Your task to perform on an android device: open app "Pandora - Music & Podcasts" (install if not already installed) Image 0: 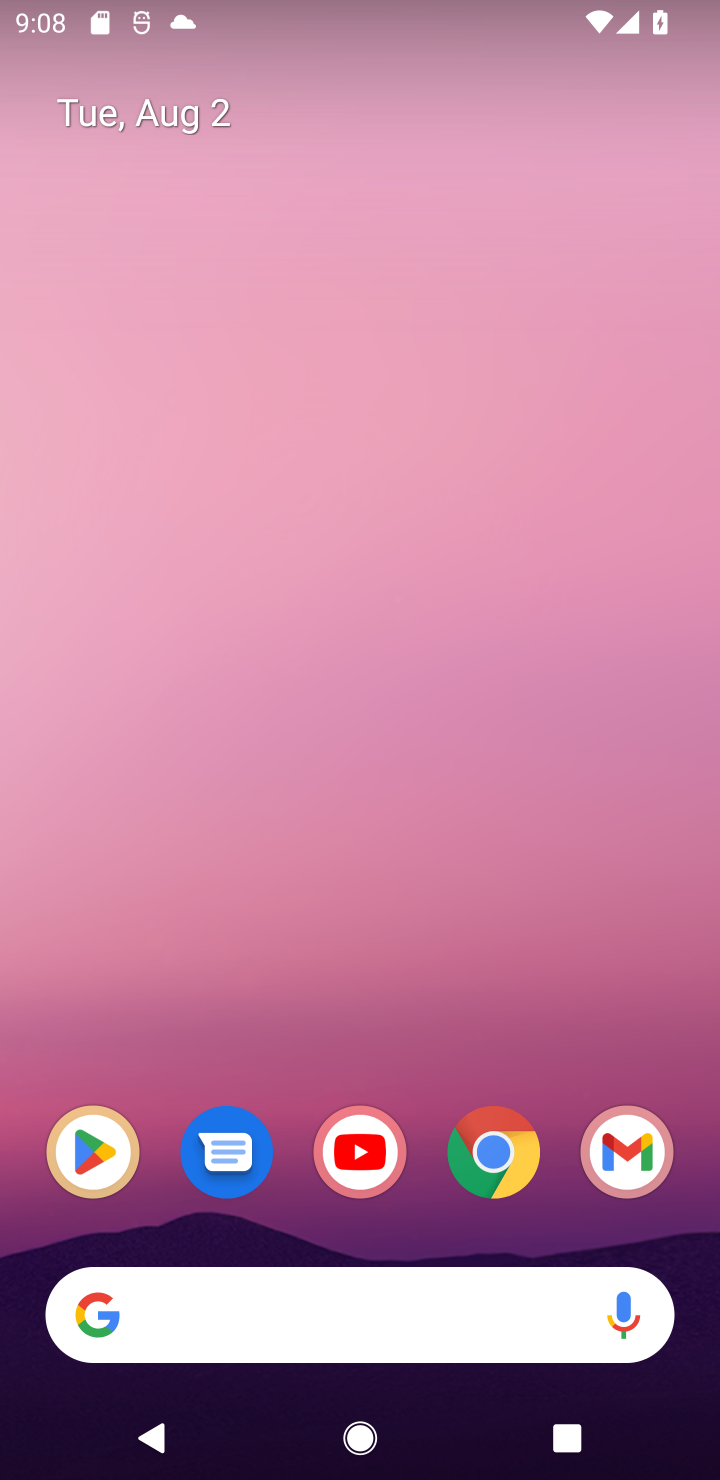
Step 0: click (92, 1160)
Your task to perform on an android device: open app "Pandora - Music & Podcasts" (install if not already installed) Image 1: 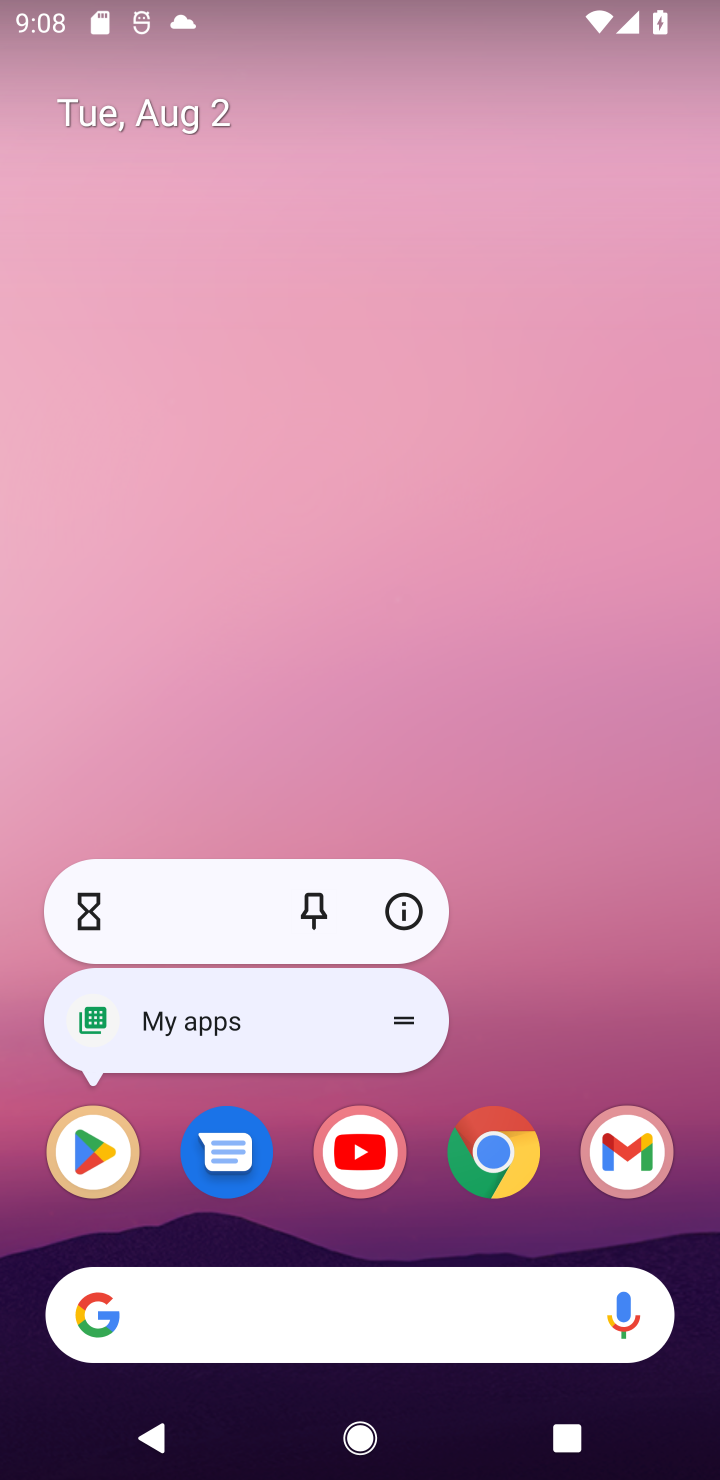
Step 1: click (92, 1185)
Your task to perform on an android device: open app "Pandora - Music & Podcasts" (install if not already installed) Image 2: 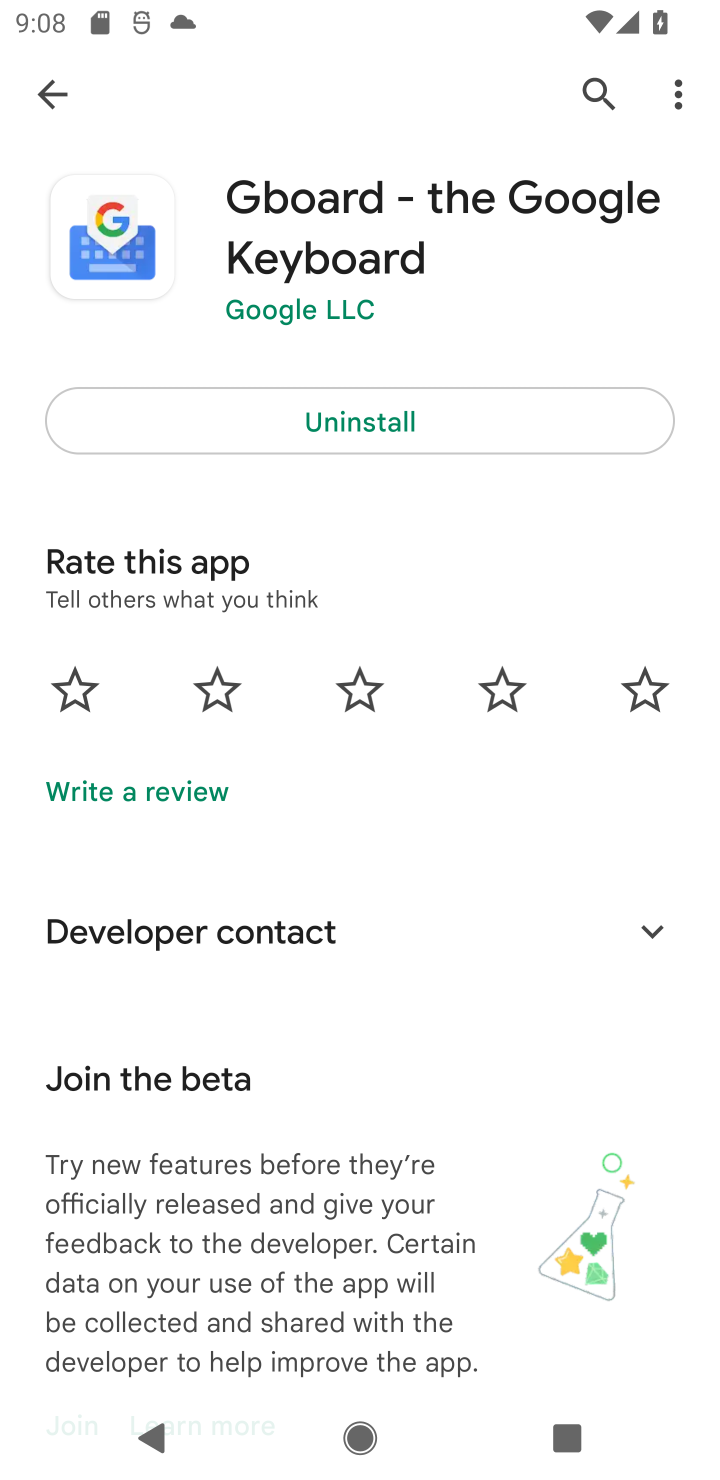
Step 2: click (33, 98)
Your task to perform on an android device: open app "Pandora - Music & Podcasts" (install if not already installed) Image 3: 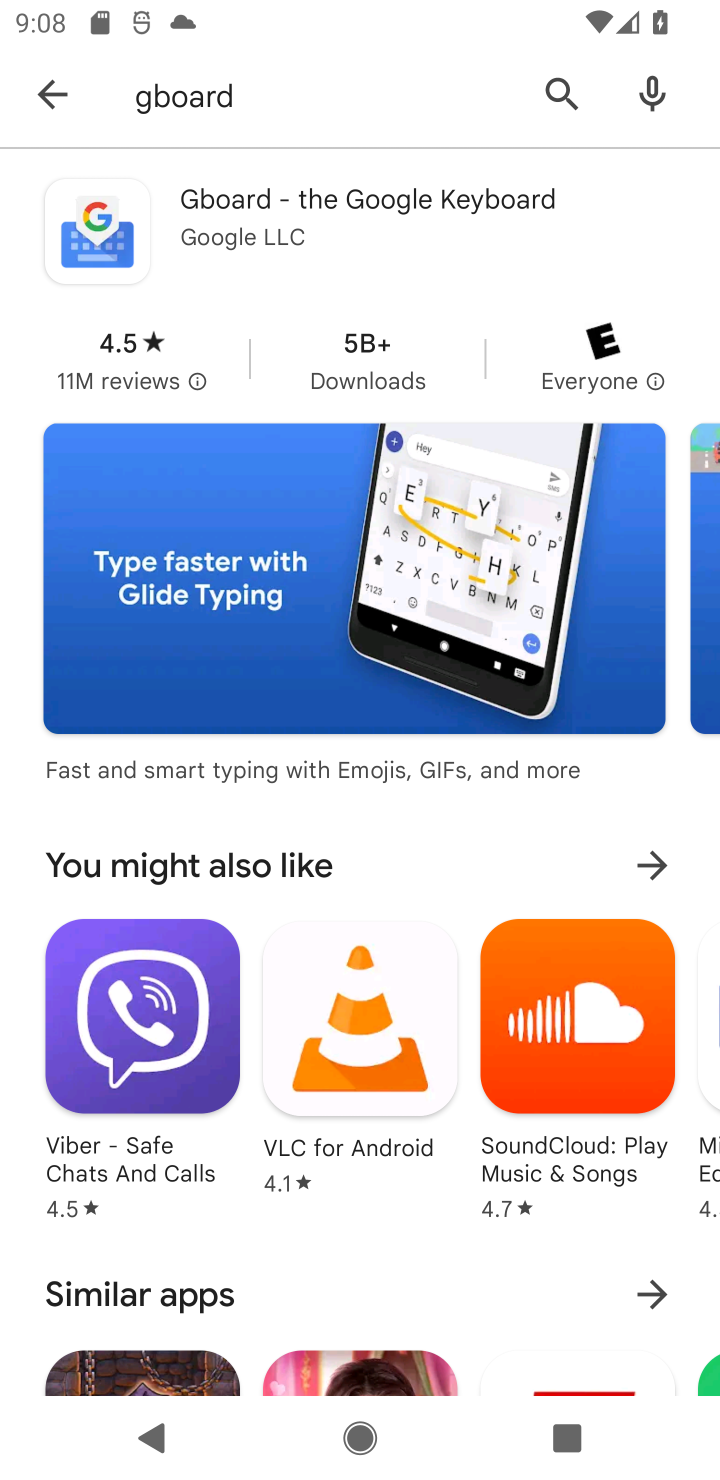
Step 3: click (55, 90)
Your task to perform on an android device: open app "Pandora - Music & Podcasts" (install if not already installed) Image 4: 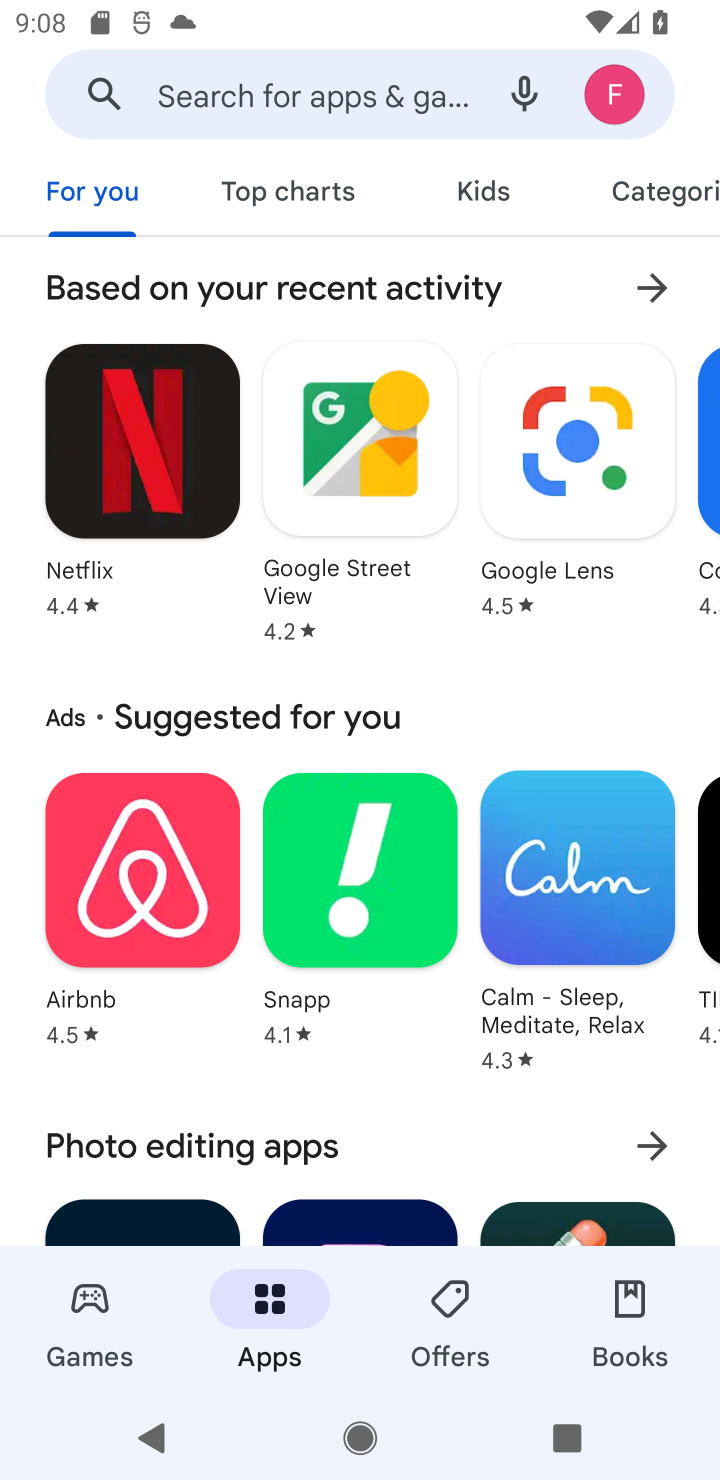
Step 4: click (171, 94)
Your task to perform on an android device: open app "Pandora - Music & Podcasts" (install if not already installed) Image 5: 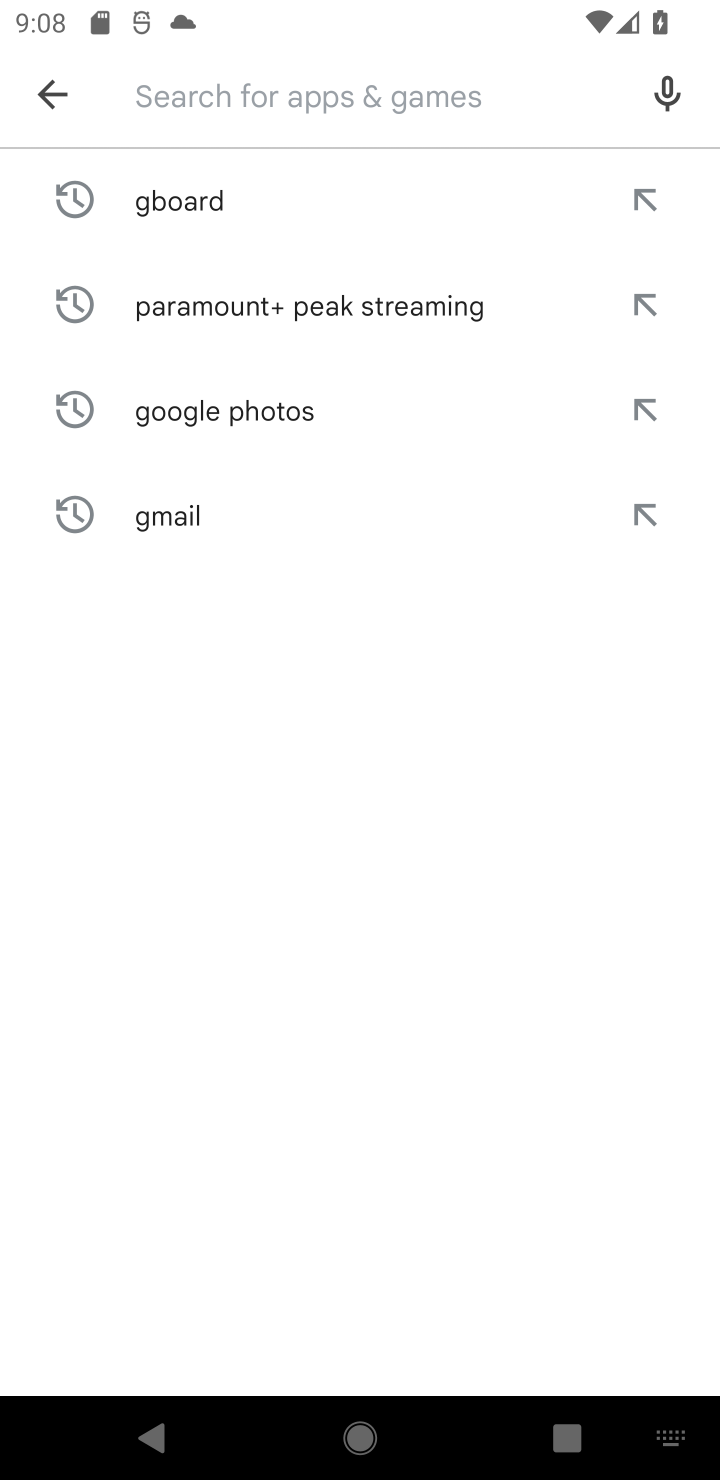
Step 5: type "Pandora - Music & Podcasts"
Your task to perform on an android device: open app "Pandora - Music & Podcasts" (install if not already installed) Image 6: 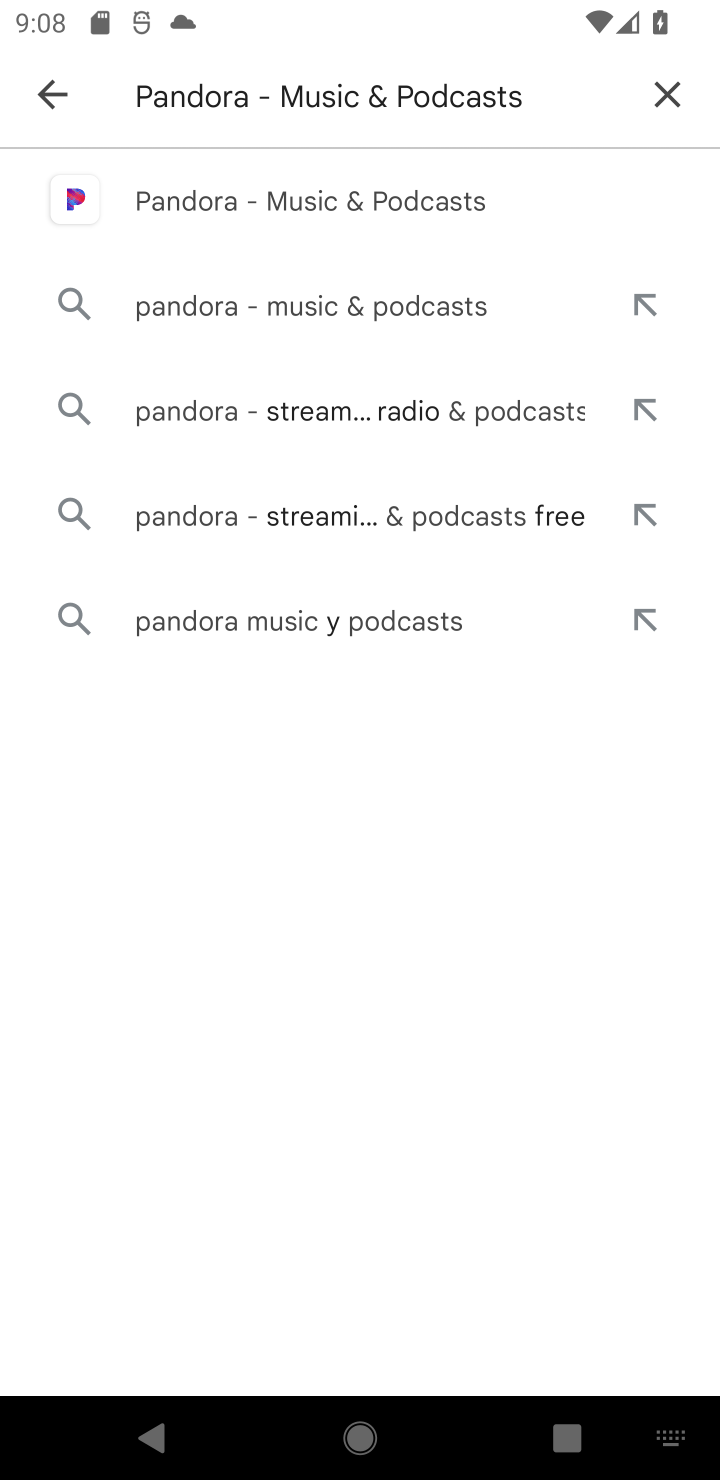
Step 6: click (217, 197)
Your task to perform on an android device: open app "Pandora - Music & Podcasts" (install if not already installed) Image 7: 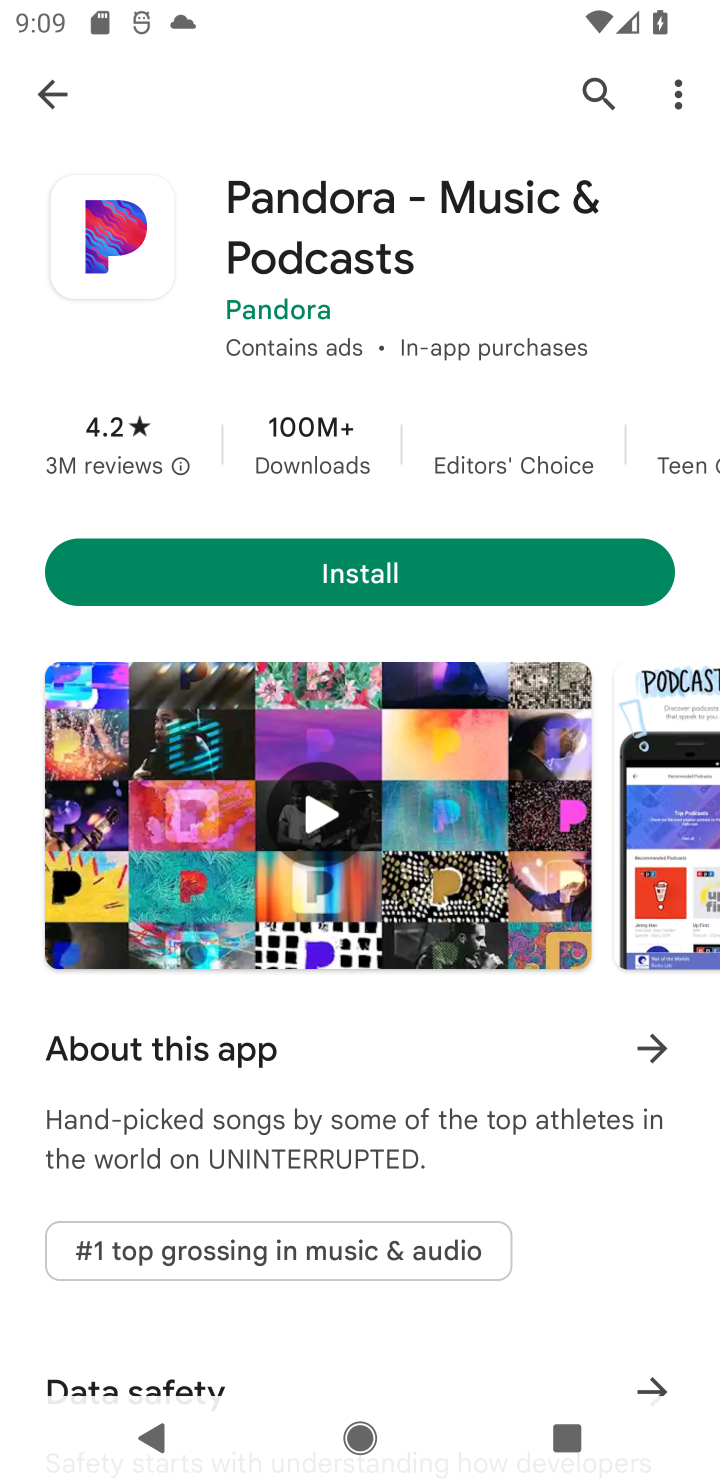
Step 7: click (382, 570)
Your task to perform on an android device: open app "Pandora - Music & Podcasts" (install if not already installed) Image 8: 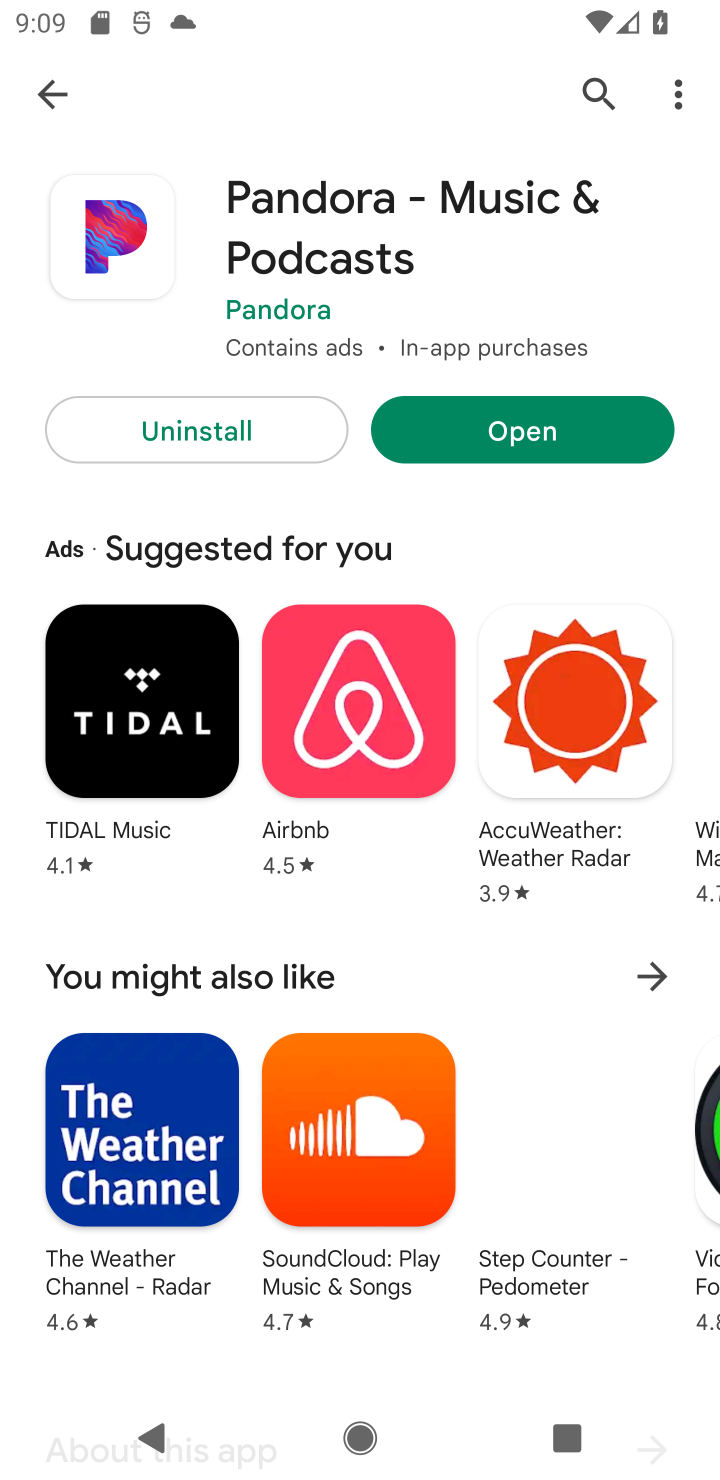
Step 8: click (475, 407)
Your task to perform on an android device: open app "Pandora - Music & Podcasts" (install if not already installed) Image 9: 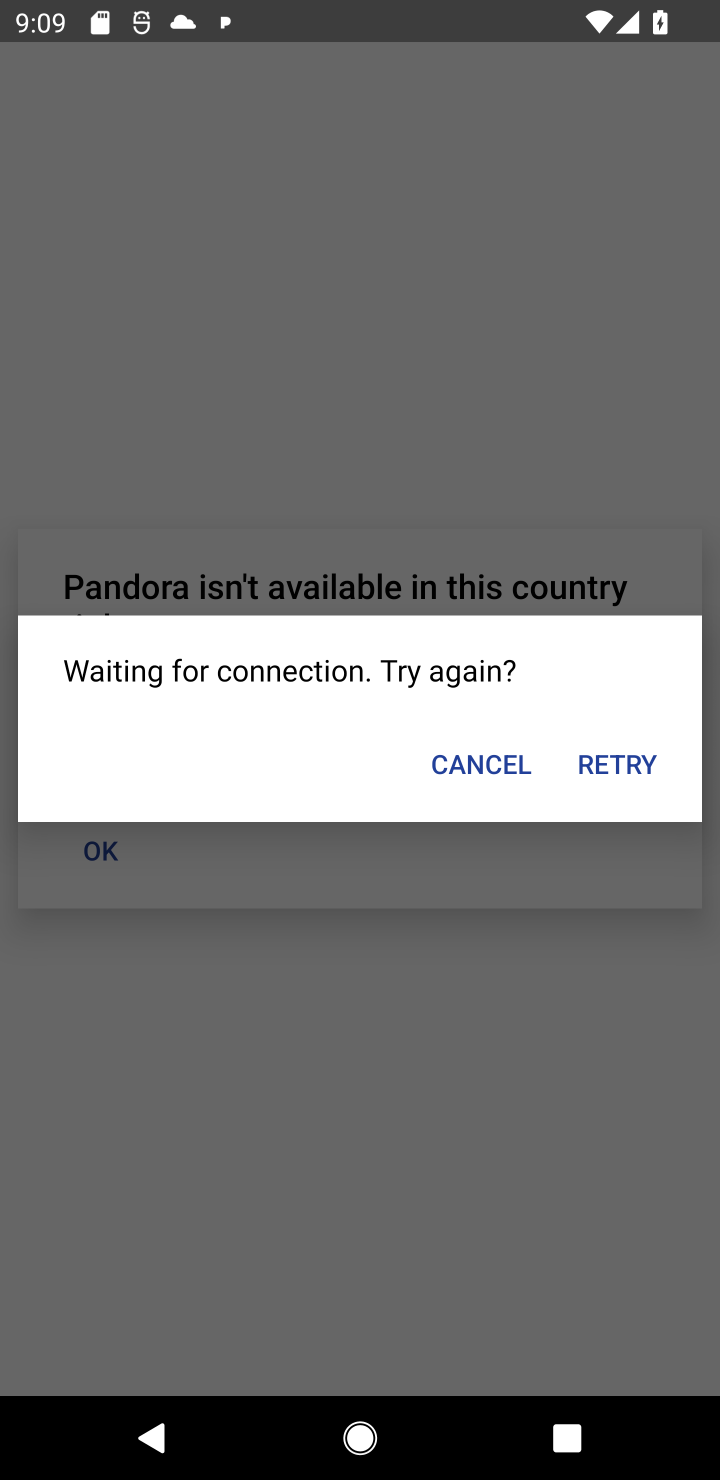
Step 9: click (461, 760)
Your task to perform on an android device: open app "Pandora - Music & Podcasts" (install if not already installed) Image 10: 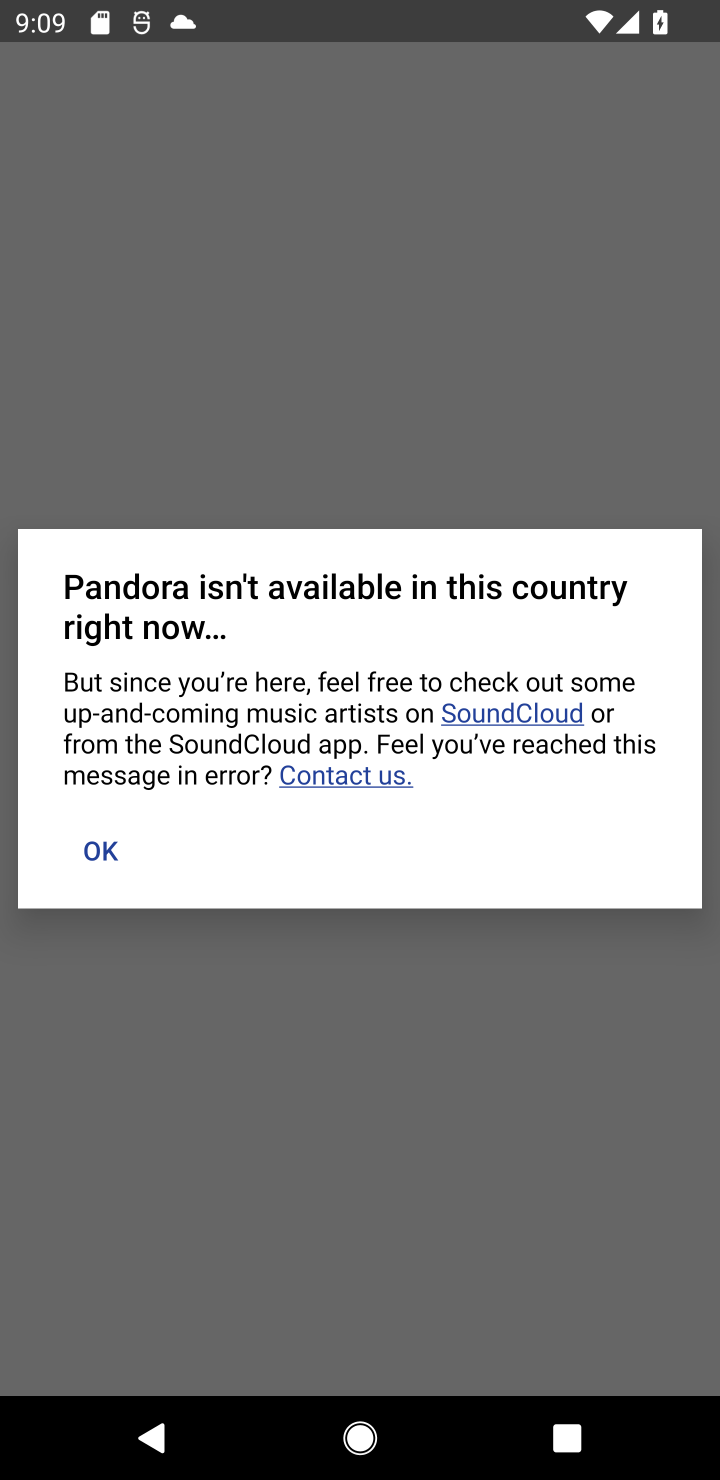
Step 10: click (461, 760)
Your task to perform on an android device: open app "Pandora - Music & Podcasts" (install if not already installed) Image 11: 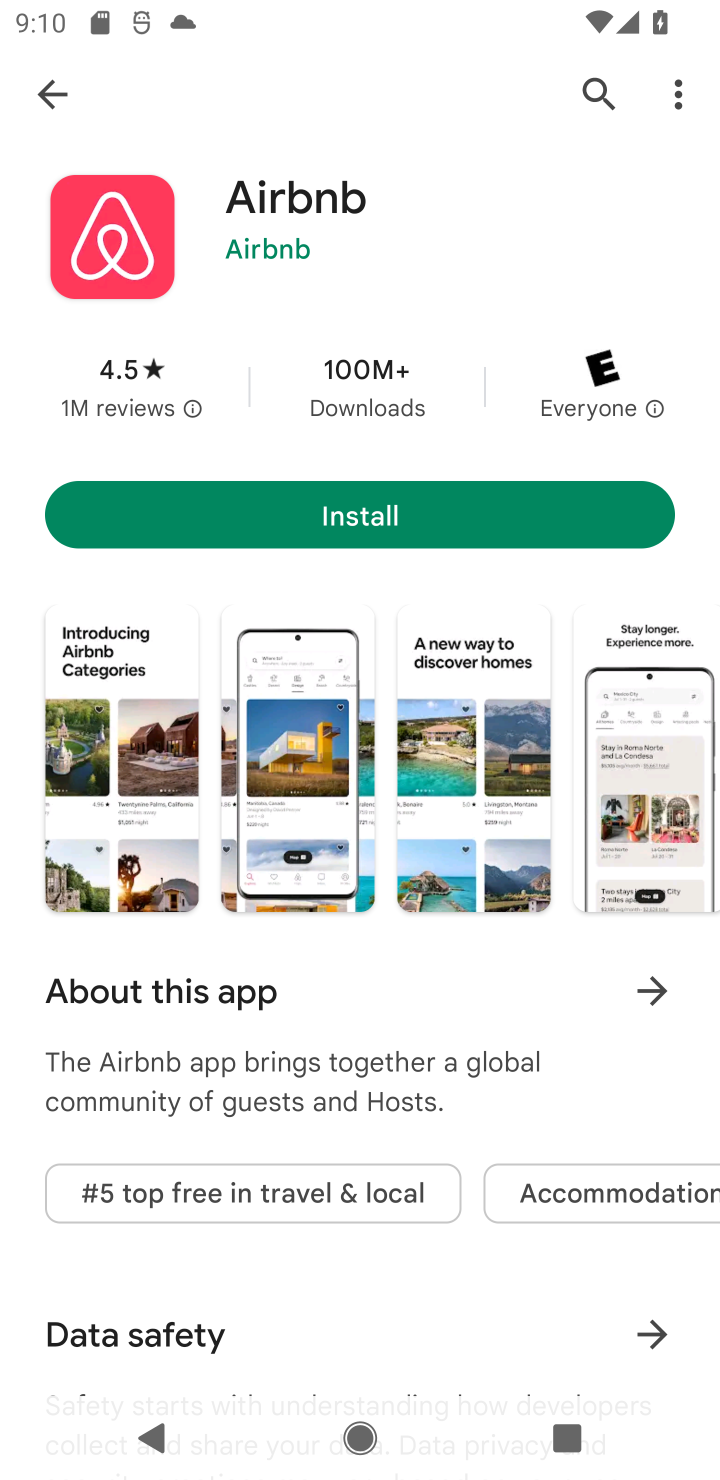
Step 11: task complete